Your task to perform on an android device: Go to wifi settings Image 0: 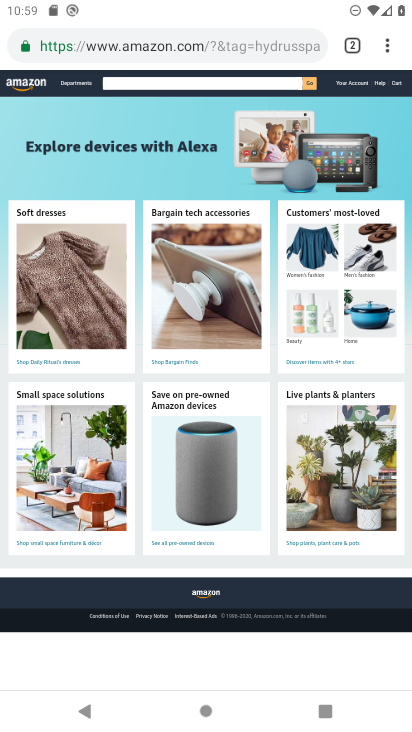
Step 0: press home button
Your task to perform on an android device: Go to wifi settings Image 1: 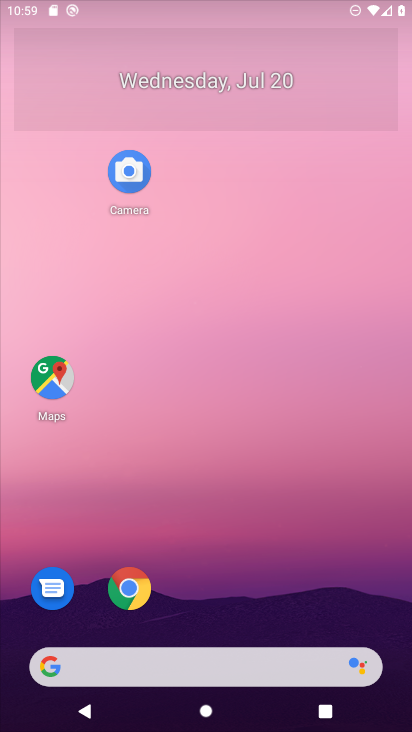
Step 1: drag from (325, 473) to (351, 80)
Your task to perform on an android device: Go to wifi settings Image 2: 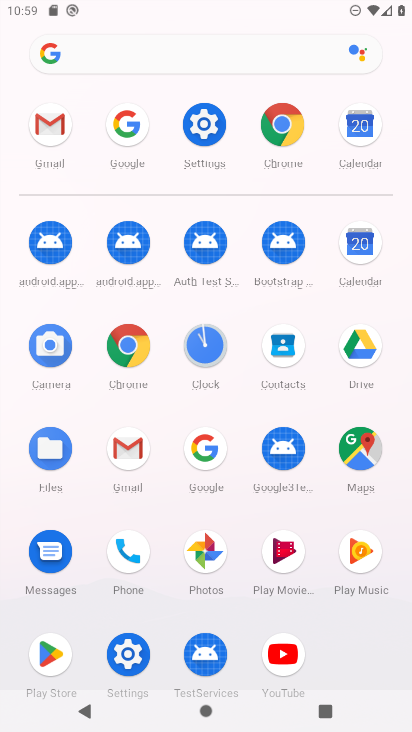
Step 2: click (205, 129)
Your task to perform on an android device: Go to wifi settings Image 3: 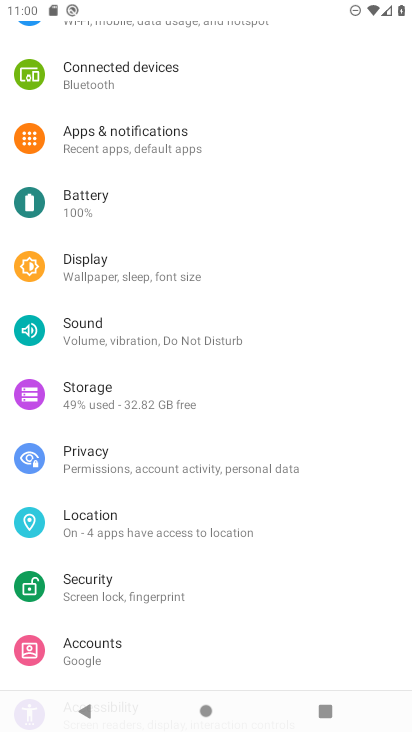
Step 3: drag from (214, 52) to (182, 317)
Your task to perform on an android device: Go to wifi settings Image 4: 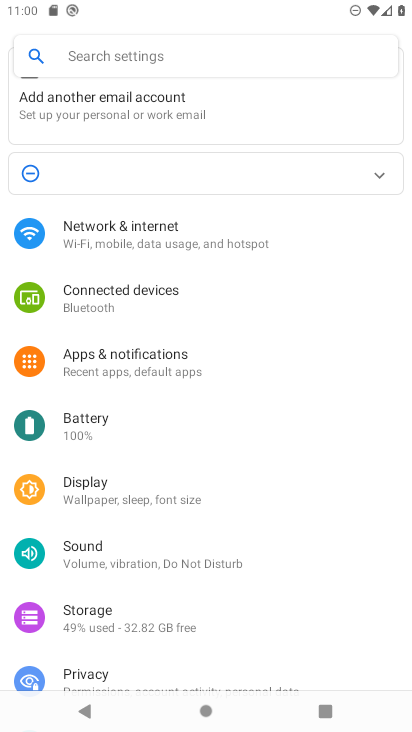
Step 4: click (193, 226)
Your task to perform on an android device: Go to wifi settings Image 5: 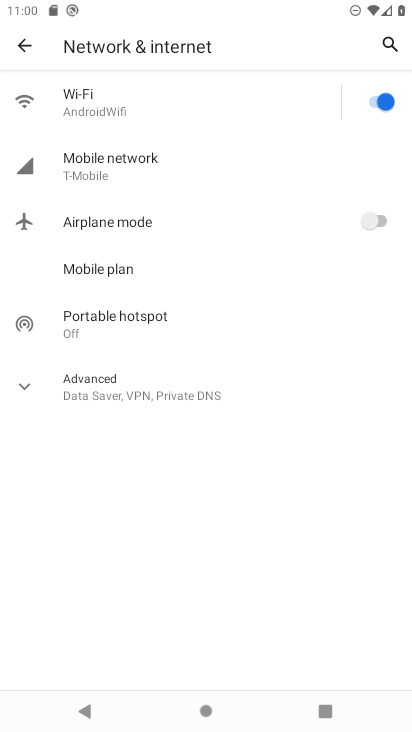
Step 5: task complete